Your task to perform on an android device: open app "Messenger Lite" (install if not already installed) and enter user name: "cataclysmic@outlook.com" and password: "victoriously" Image 0: 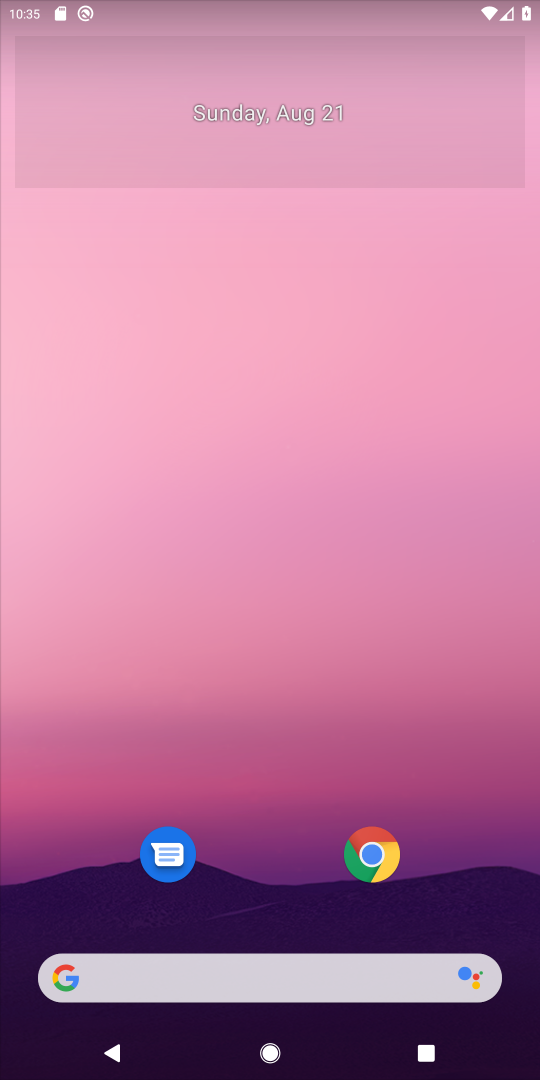
Step 0: press home button
Your task to perform on an android device: open app "Messenger Lite" (install if not already installed) and enter user name: "cataclysmic@outlook.com" and password: "victoriously" Image 1: 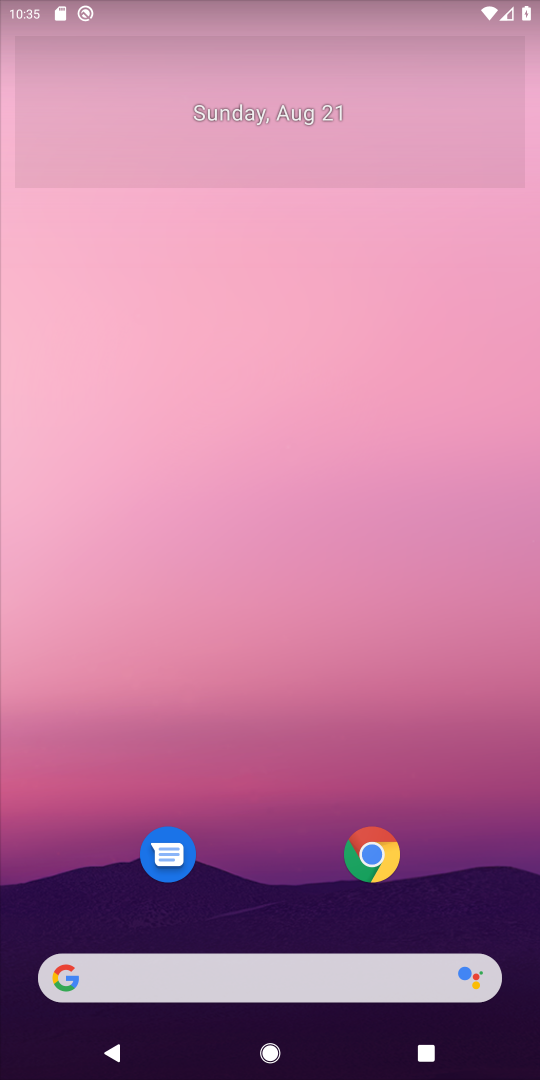
Step 1: drag from (308, 952) to (326, 186)
Your task to perform on an android device: open app "Messenger Lite" (install if not already installed) and enter user name: "cataclysmic@outlook.com" and password: "victoriously" Image 2: 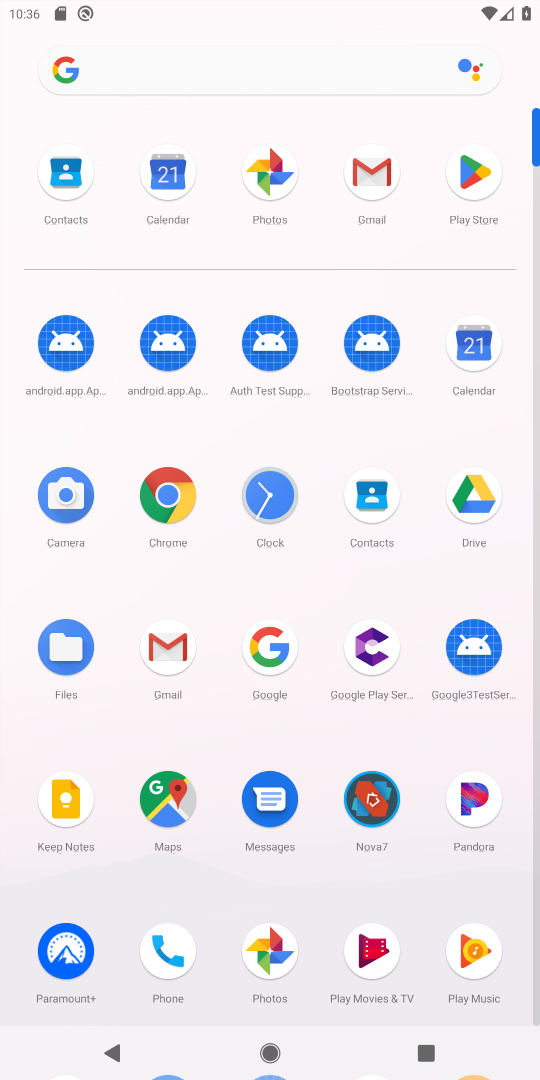
Step 2: click (454, 175)
Your task to perform on an android device: open app "Messenger Lite" (install if not already installed) and enter user name: "cataclysmic@outlook.com" and password: "victoriously" Image 3: 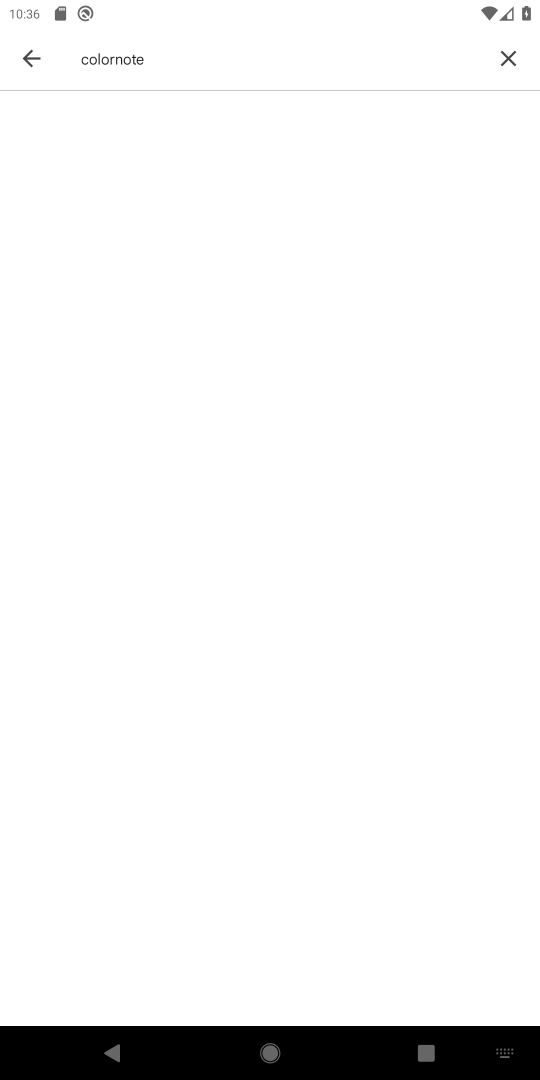
Step 3: click (496, 62)
Your task to perform on an android device: open app "Messenger Lite" (install if not already installed) and enter user name: "cataclysmic@outlook.com" and password: "victoriously" Image 4: 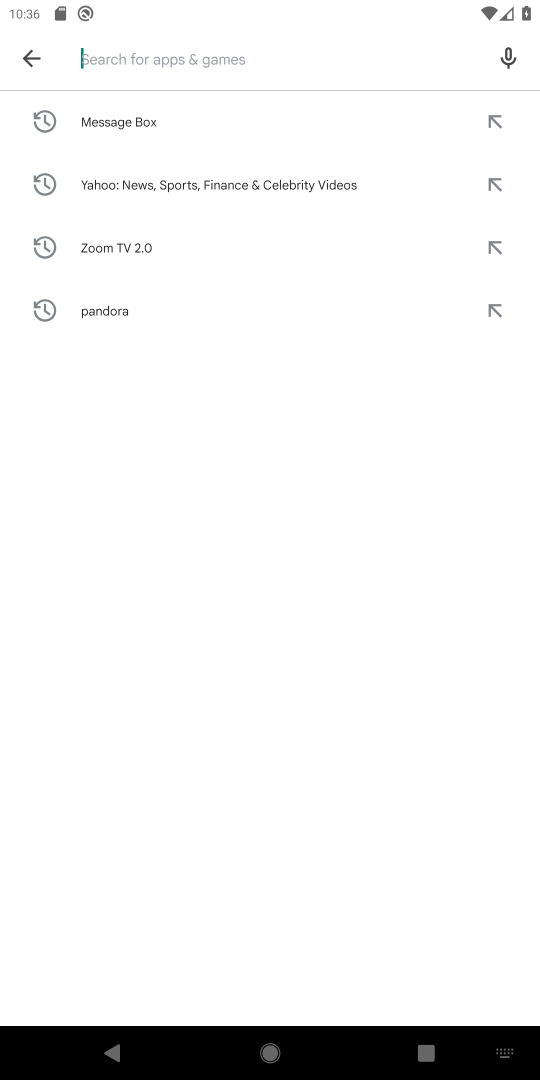
Step 4: type "messangeer"
Your task to perform on an android device: open app "Messenger Lite" (install if not already installed) and enter user name: "cataclysmic@outlook.com" and password: "victoriously" Image 5: 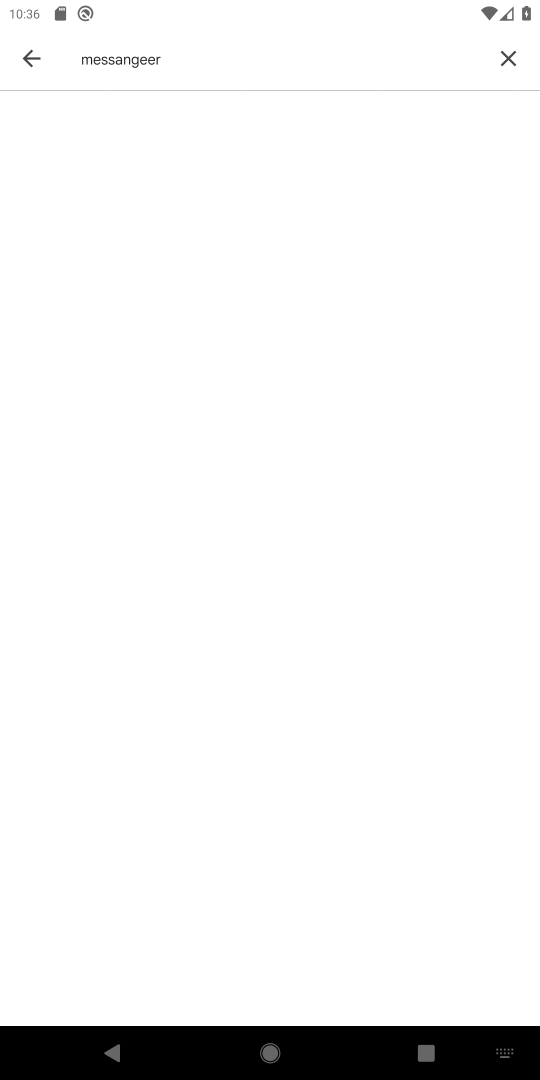
Step 5: task complete